Your task to perform on an android device: open app "Paramount+ | Peak Streaming" Image 0: 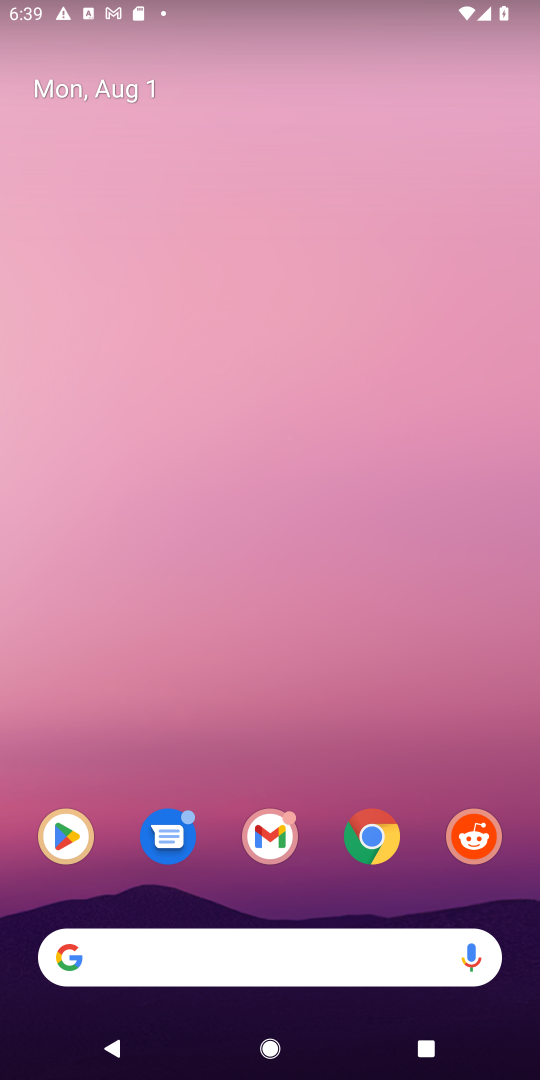
Step 0: press home button
Your task to perform on an android device: open app "Paramount+ | Peak Streaming" Image 1: 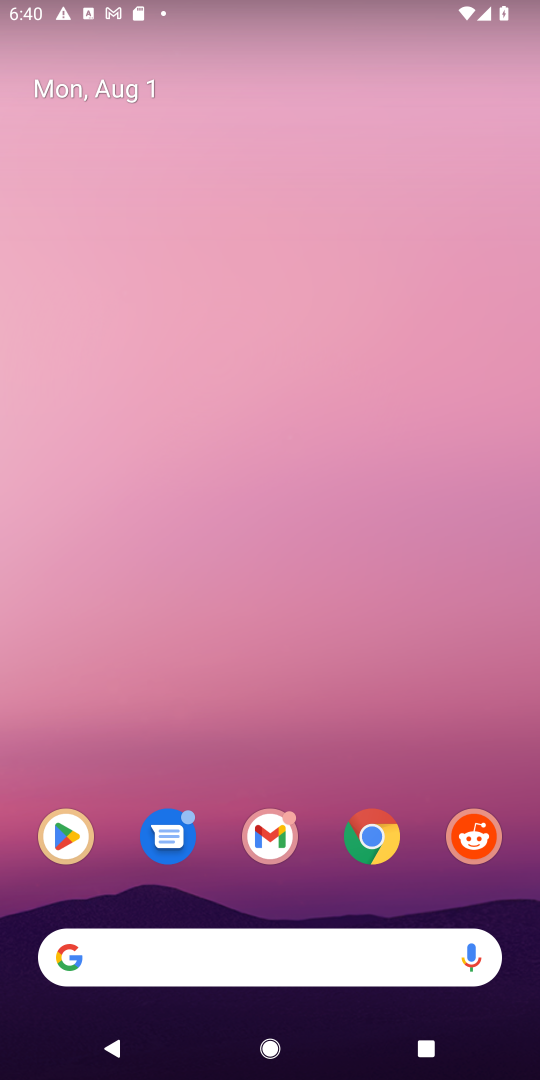
Step 1: click (69, 841)
Your task to perform on an android device: open app "Paramount+ | Peak Streaming" Image 2: 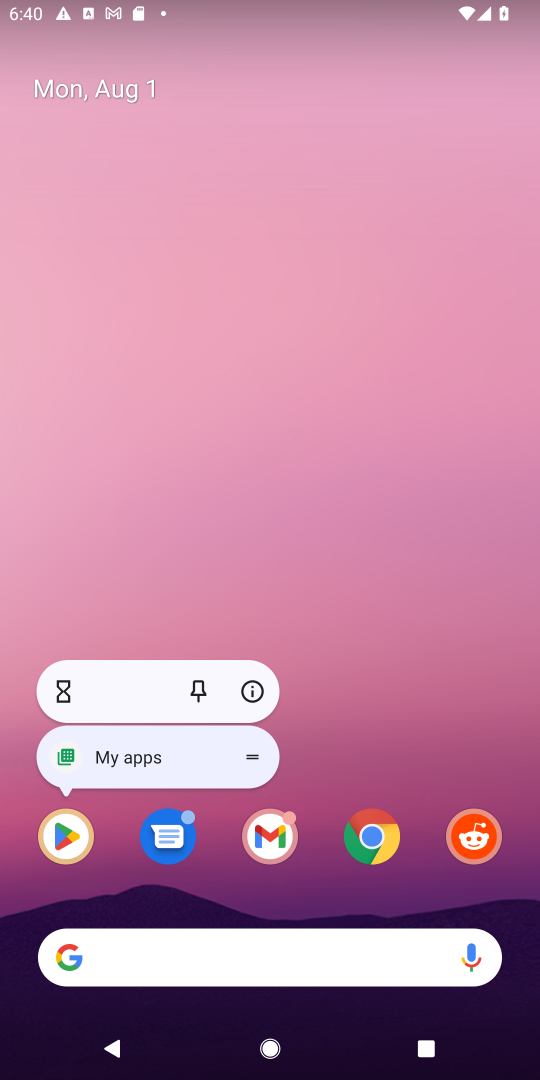
Step 2: click (60, 842)
Your task to perform on an android device: open app "Paramount+ | Peak Streaming" Image 3: 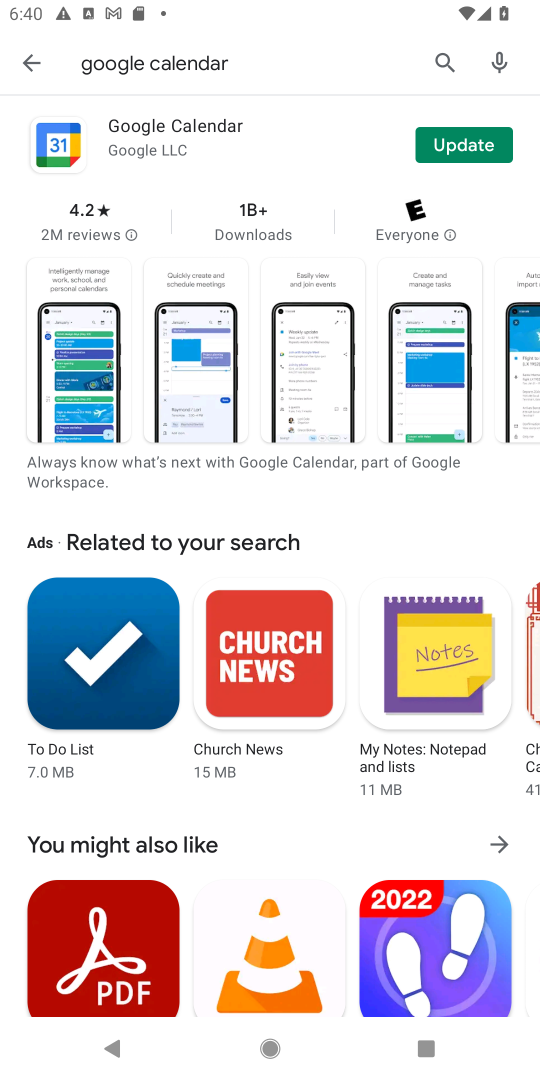
Step 3: click (444, 64)
Your task to perform on an android device: open app "Paramount+ | Peak Streaming" Image 4: 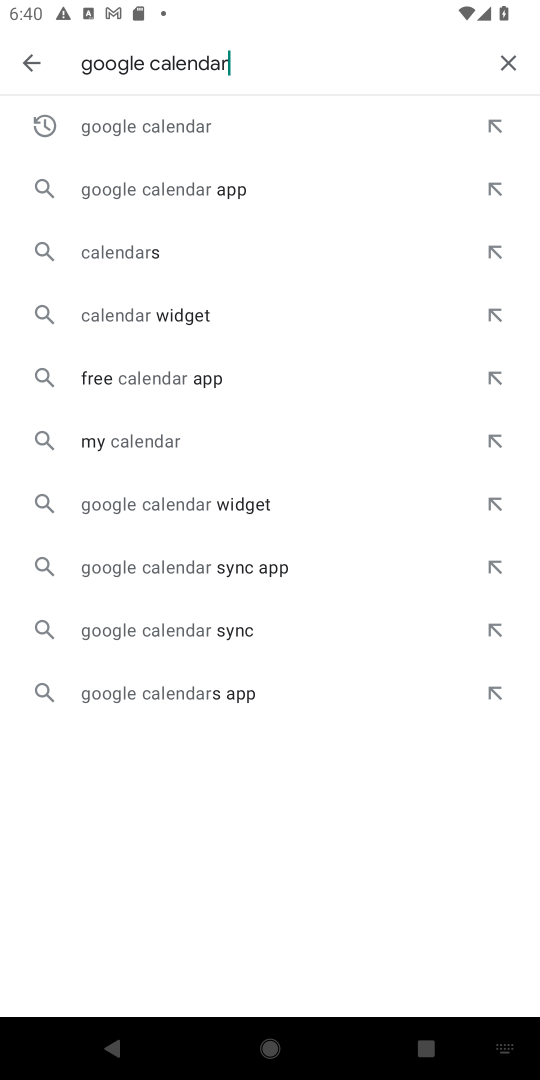
Step 4: click (508, 61)
Your task to perform on an android device: open app "Paramount+ | Peak Streaming" Image 5: 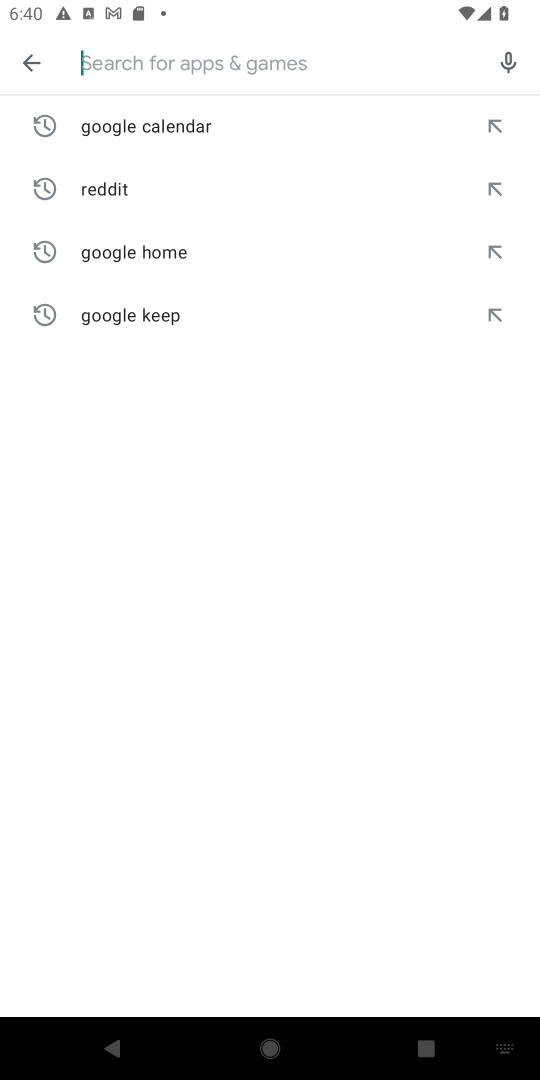
Step 5: type "Paramount+ | Peak Streaming"
Your task to perform on an android device: open app "Paramount+ | Peak Streaming" Image 6: 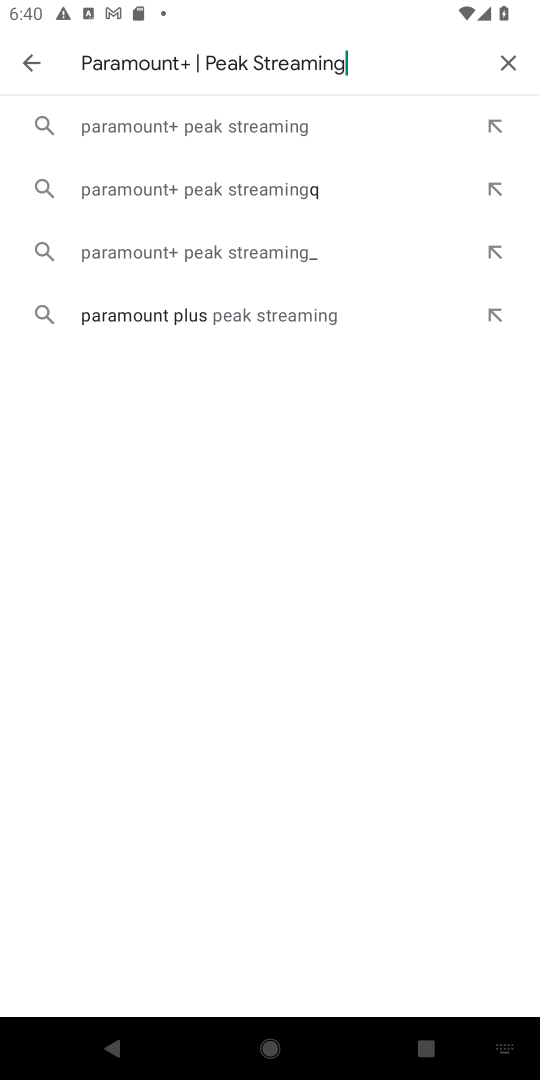
Step 6: click (111, 138)
Your task to perform on an android device: open app "Paramount+ | Peak Streaming" Image 7: 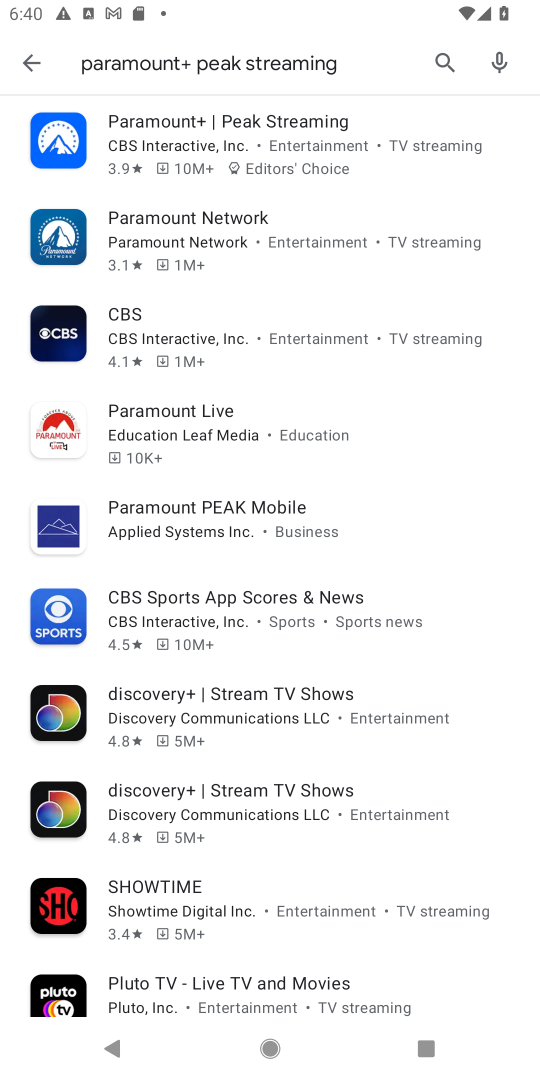
Step 7: click (183, 154)
Your task to perform on an android device: open app "Paramount+ | Peak Streaming" Image 8: 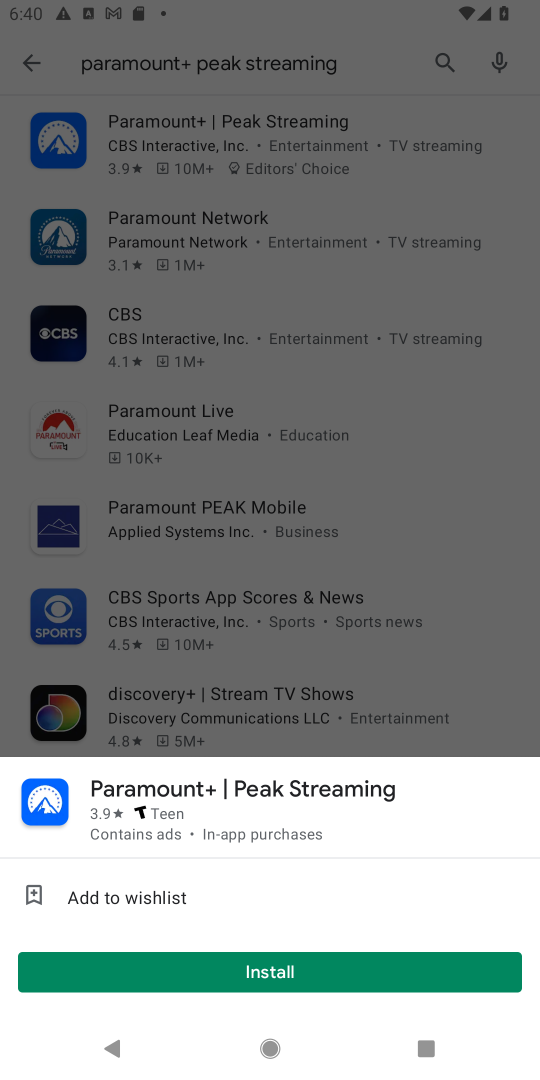
Step 8: task complete